Your task to perform on an android device: turn on sleep mode Image 0: 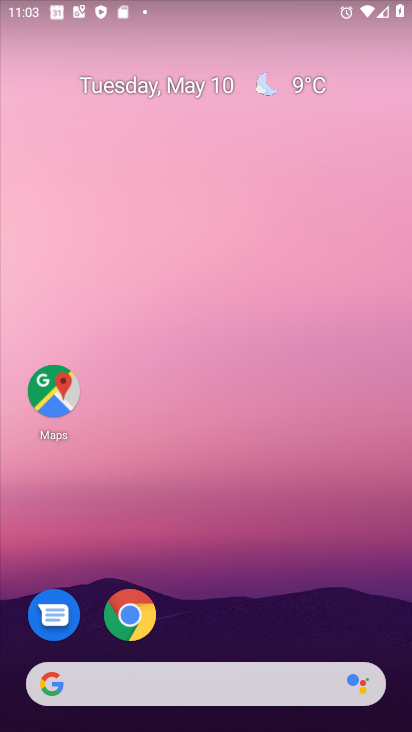
Step 0: drag from (216, 614) to (270, 72)
Your task to perform on an android device: turn on sleep mode Image 1: 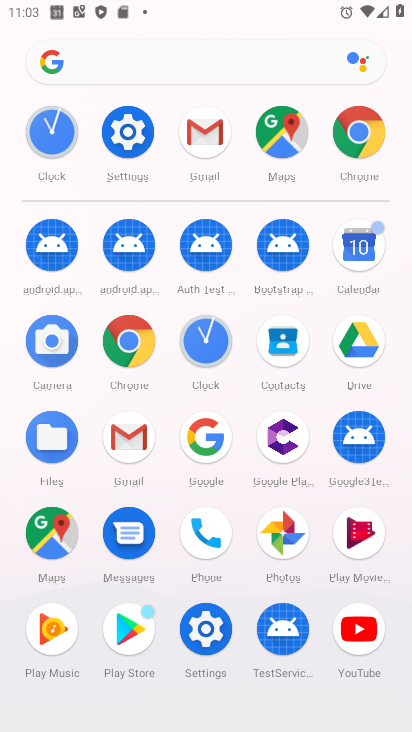
Step 1: click (126, 125)
Your task to perform on an android device: turn on sleep mode Image 2: 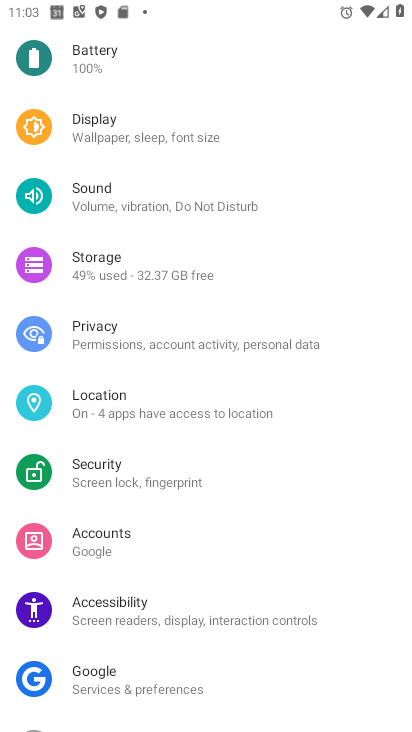
Step 2: click (127, 111)
Your task to perform on an android device: turn on sleep mode Image 3: 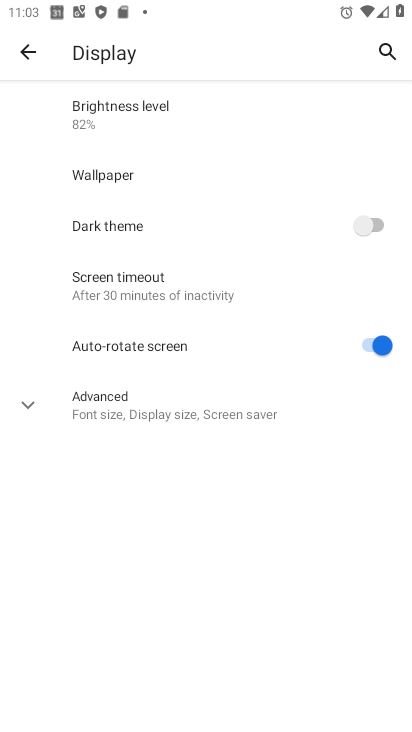
Step 3: click (24, 400)
Your task to perform on an android device: turn on sleep mode Image 4: 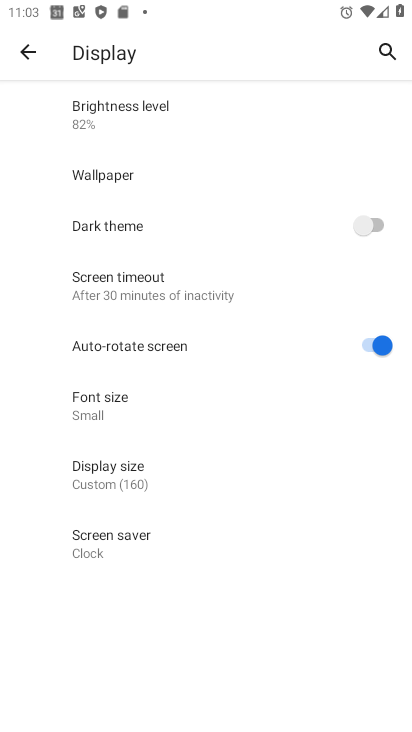
Step 4: task complete